Your task to perform on an android device: Go to notification settings Image 0: 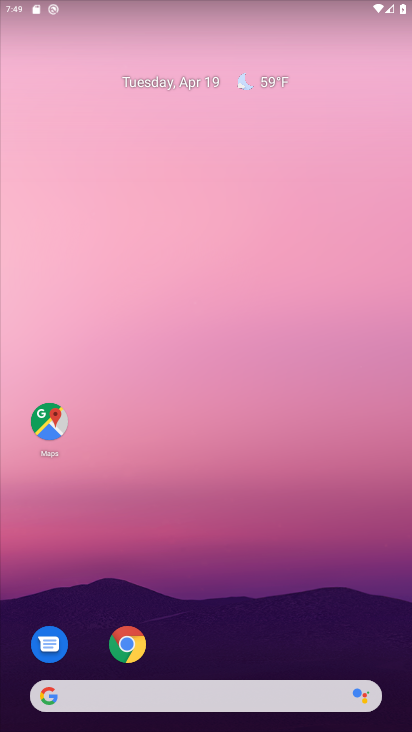
Step 0: drag from (194, 615) to (224, 162)
Your task to perform on an android device: Go to notification settings Image 1: 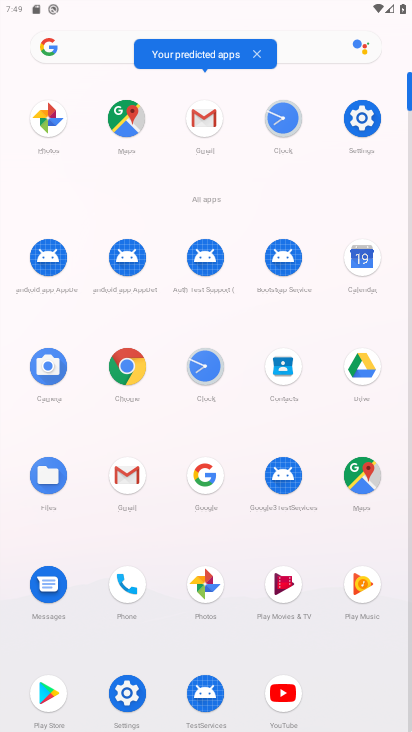
Step 1: click (364, 115)
Your task to perform on an android device: Go to notification settings Image 2: 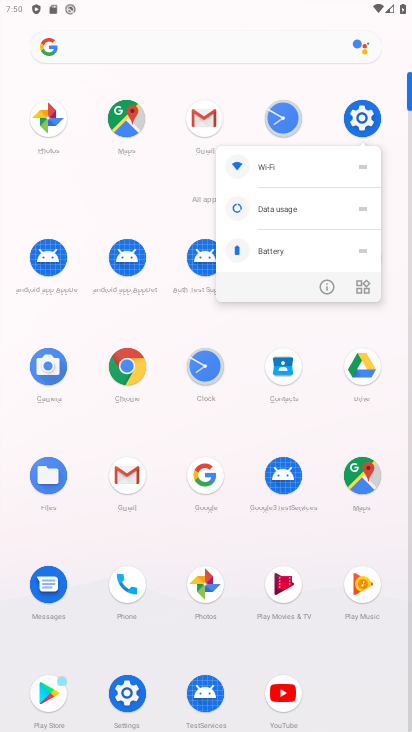
Step 2: click (352, 117)
Your task to perform on an android device: Go to notification settings Image 3: 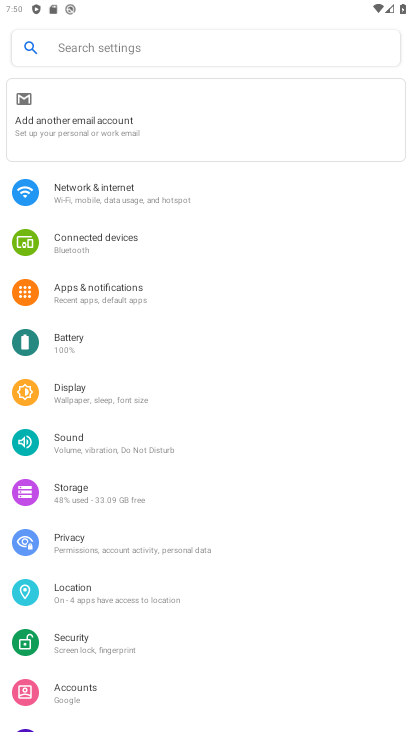
Step 3: click (108, 289)
Your task to perform on an android device: Go to notification settings Image 4: 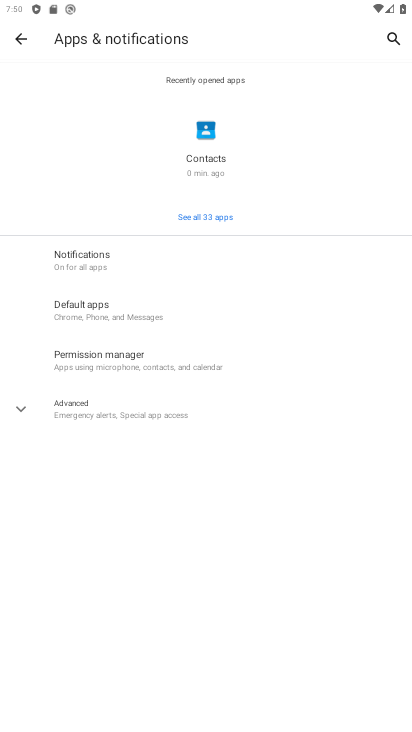
Step 4: task complete